Your task to perform on an android device: Play the latest video from the BBC Image 0: 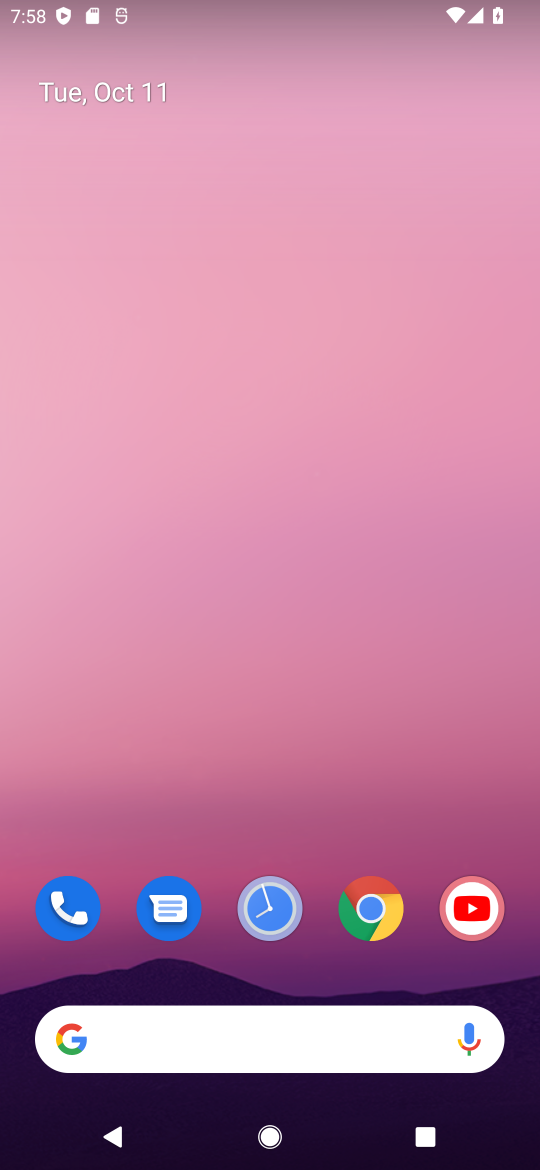
Step 0: click (302, 1031)
Your task to perform on an android device: Play the latest video from the BBC Image 1: 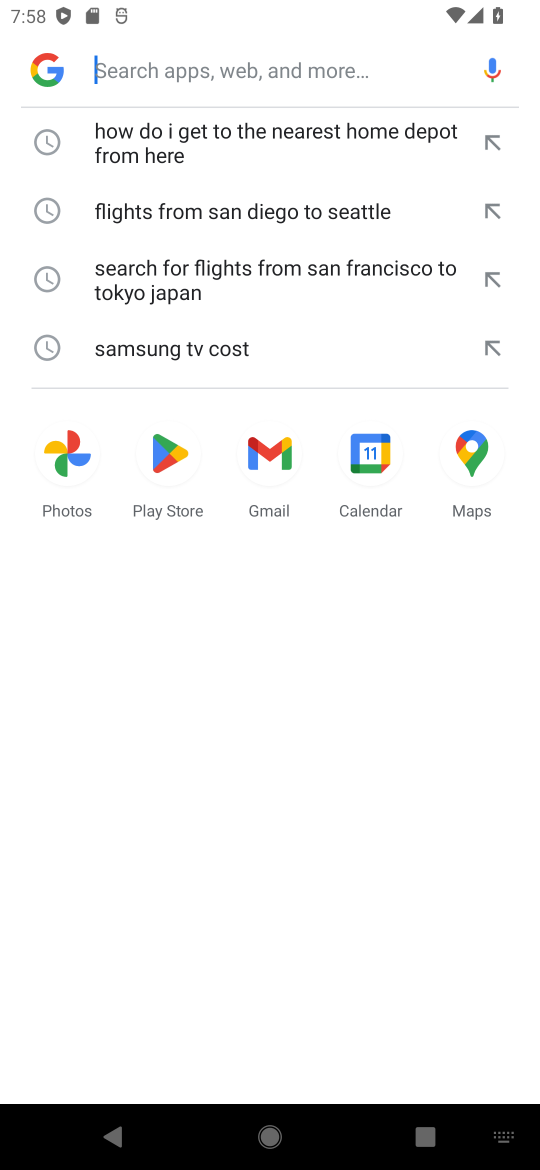
Step 1: type "Play the latest video from the bbc"
Your task to perform on an android device: Play the latest video from the BBC Image 2: 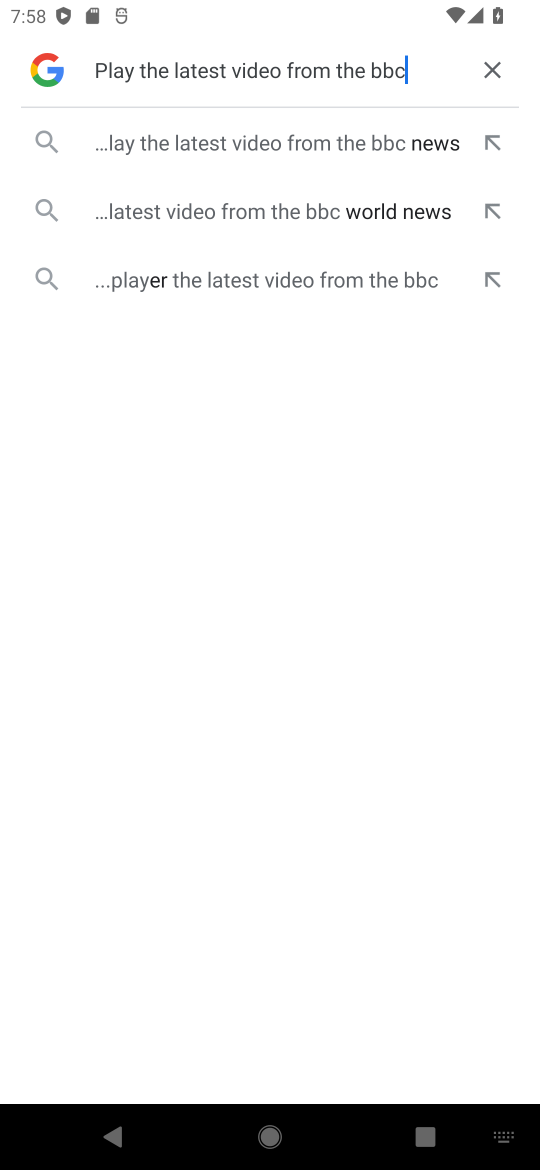
Step 2: click (283, 135)
Your task to perform on an android device: Play the latest video from the BBC Image 3: 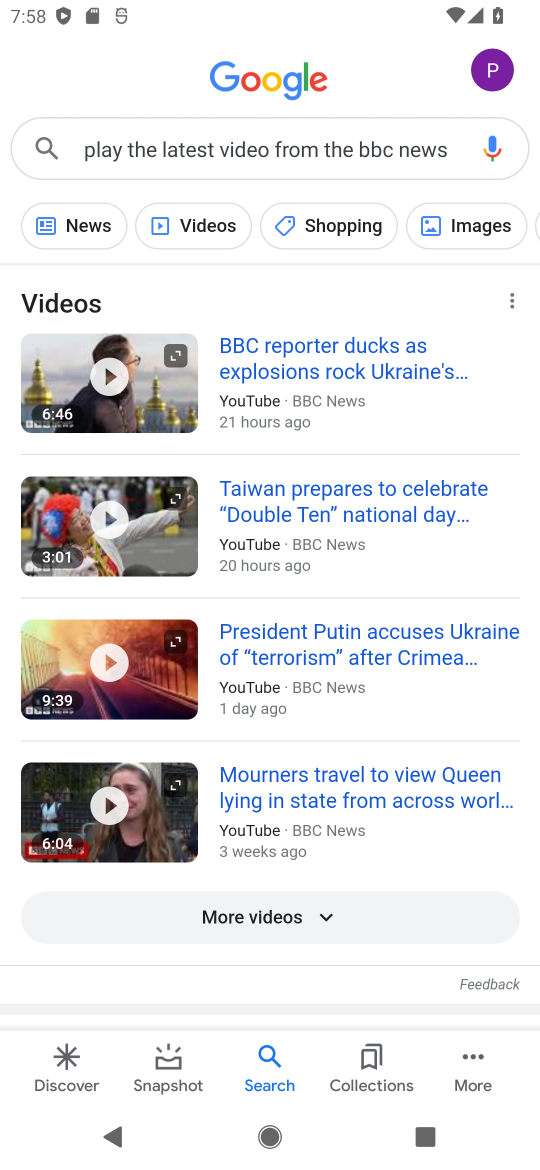
Step 3: click (96, 366)
Your task to perform on an android device: Play the latest video from the BBC Image 4: 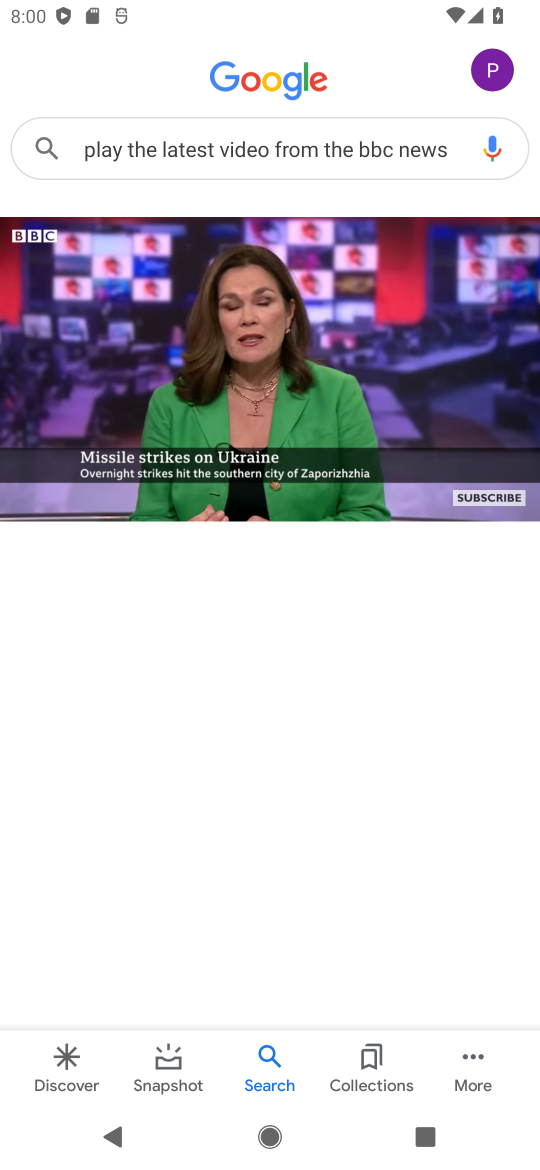
Step 4: task complete